Your task to perform on an android device: turn pop-ups off in chrome Image 0: 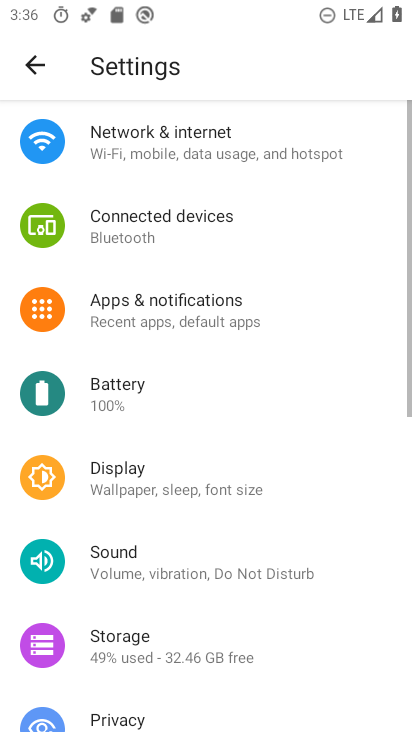
Step 0: press home button
Your task to perform on an android device: turn pop-ups off in chrome Image 1: 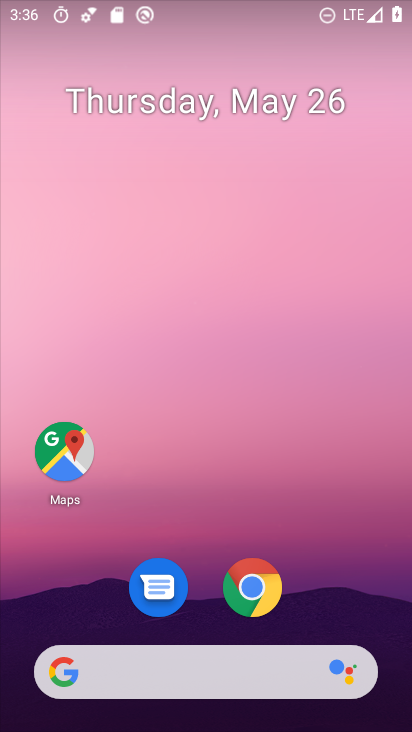
Step 1: click (257, 582)
Your task to perform on an android device: turn pop-ups off in chrome Image 2: 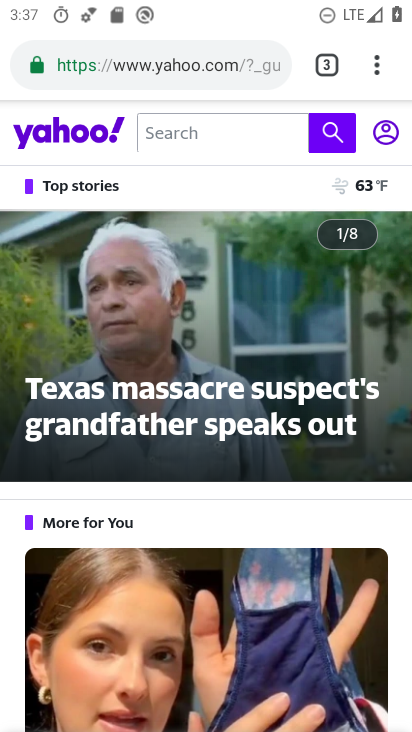
Step 2: drag from (370, 57) to (200, 632)
Your task to perform on an android device: turn pop-ups off in chrome Image 3: 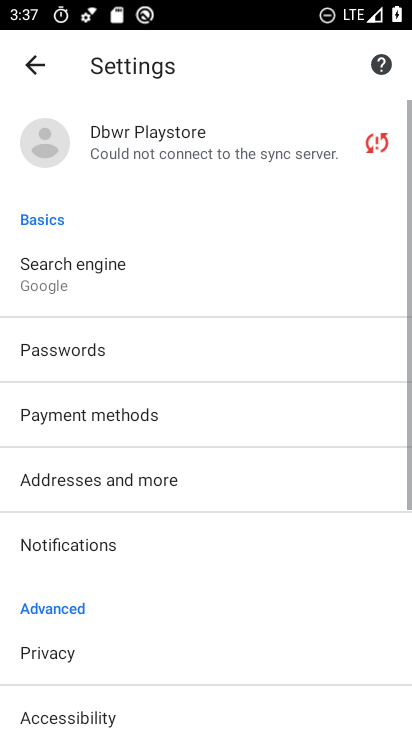
Step 3: drag from (203, 618) to (280, 175)
Your task to perform on an android device: turn pop-ups off in chrome Image 4: 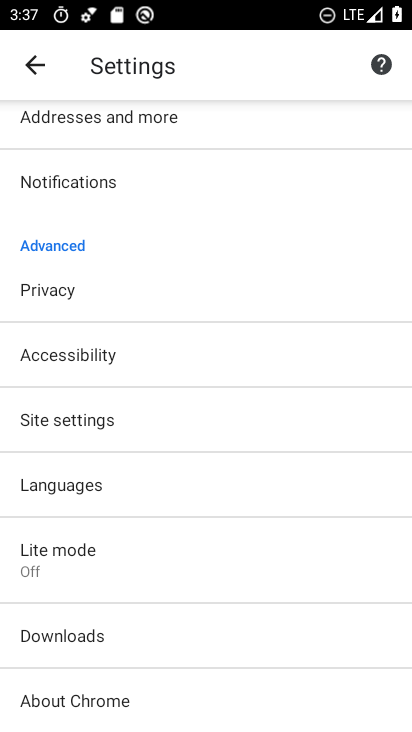
Step 4: click (94, 418)
Your task to perform on an android device: turn pop-ups off in chrome Image 5: 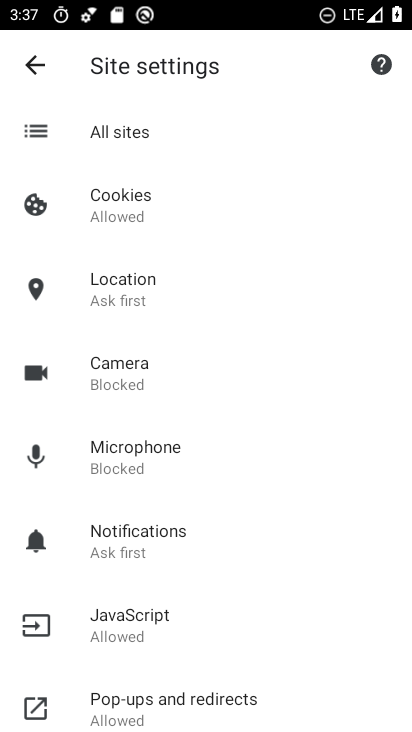
Step 5: click (150, 704)
Your task to perform on an android device: turn pop-ups off in chrome Image 6: 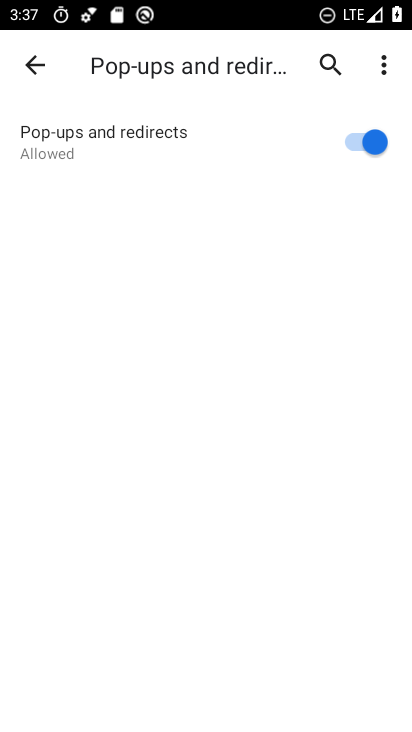
Step 6: click (374, 131)
Your task to perform on an android device: turn pop-ups off in chrome Image 7: 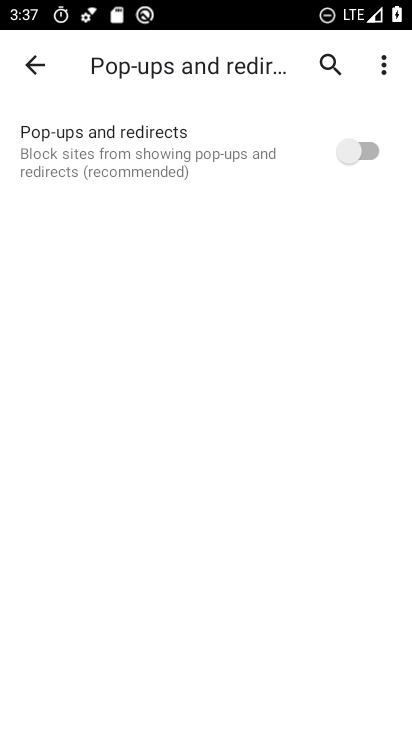
Step 7: task complete